Your task to perform on an android device: Is it going to rain tomorrow? Image 0: 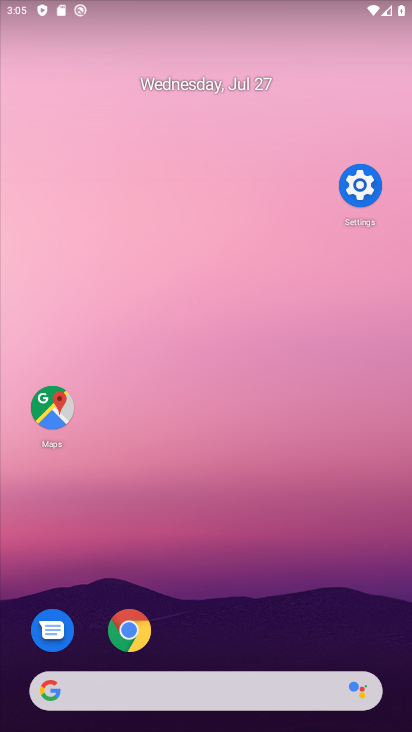
Step 0: click (42, 692)
Your task to perform on an android device: Is it going to rain tomorrow? Image 1: 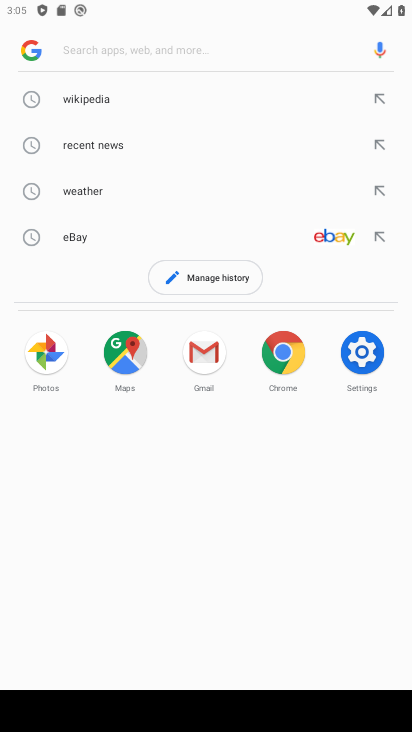
Step 1: type "rain tomorrow?"
Your task to perform on an android device: Is it going to rain tomorrow? Image 2: 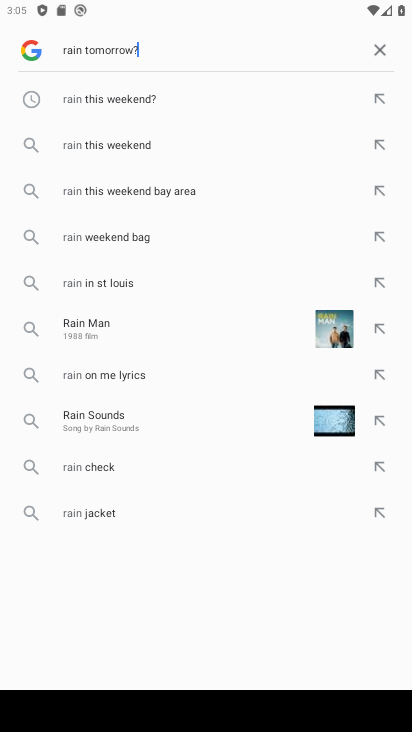
Step 2: press enter
Your task to perform on an android device: Is it going to rain tomorrow? Image 3: 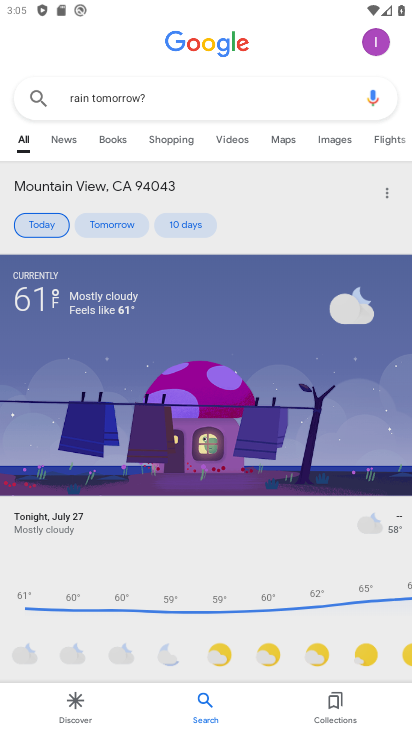
Step 3: task complete